Your task to perform on an android device: Search for Italian restaurants on Maps Image 0: 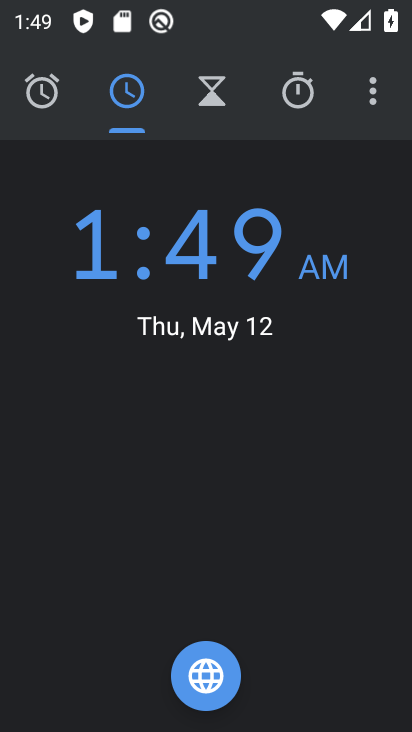
Step 0: press home button
Your task to perform on an android device: Search for Italian restaurants on Maps Image 1: 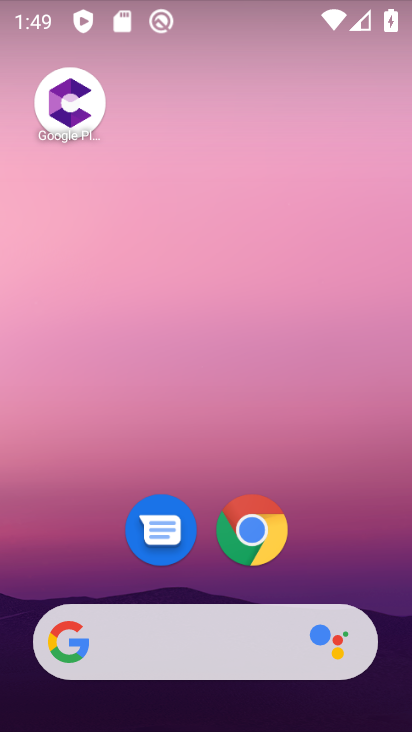
Step 1: drag from (39, 546) to (304, 124)
Your task to perform on an android device: Search for Italian restaurants on Maps Image 2: 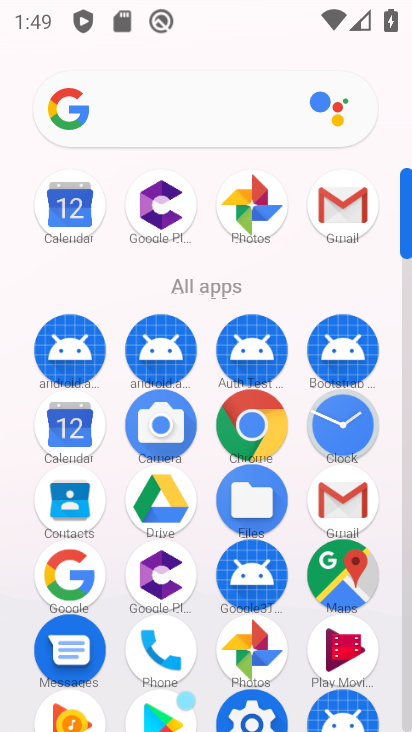
Step 2: click (334, 571)
Your task to perform on an android device: Search for Italian restaurants on Maps Image 3: 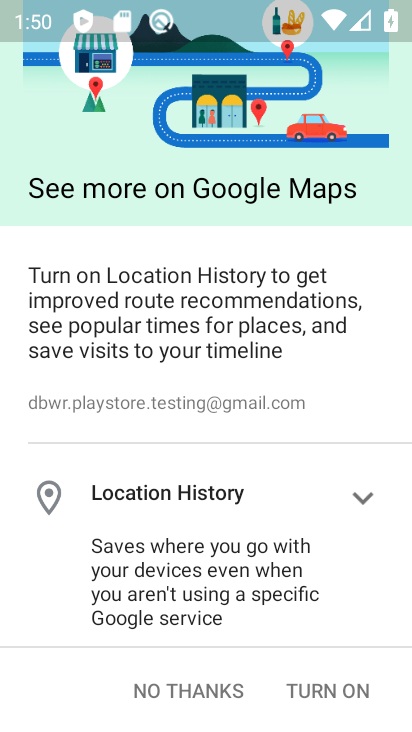
Step 3: click (195, 698)
Your task to perform on an android device: Search for Italian restaurants on Maps Image 4: 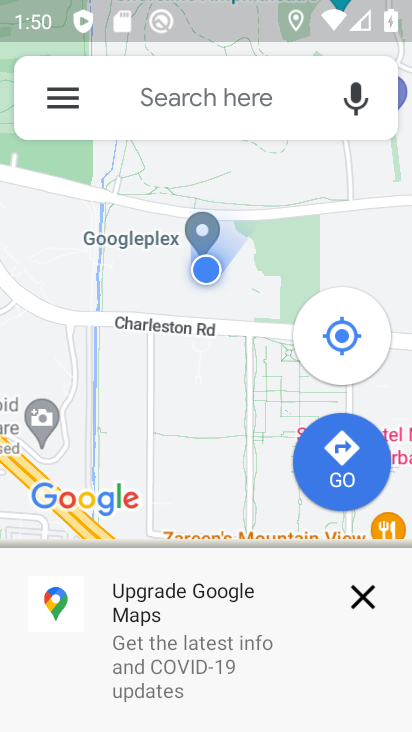
Step 4: click (260, 82)
Your task to perform on an android device: Search for Italian restaurants on Maps Image 5: 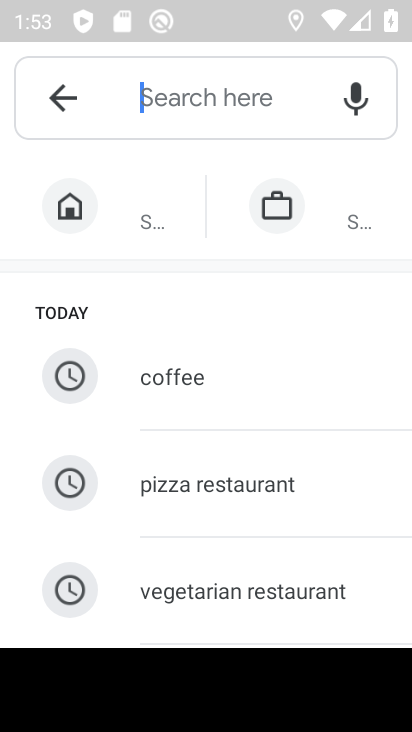
Step 5: drag from (232, 610) to (356, 227)
Your task to perform on an android device: Search for Italian restaurants on Maps Image 6: 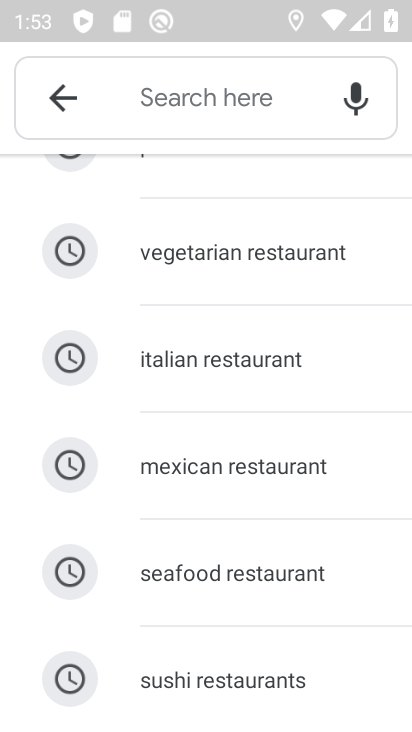
Step 6: click (252, 374)
Your task to perform on an android device: Search for Italian restaurants on Maps Image 7: 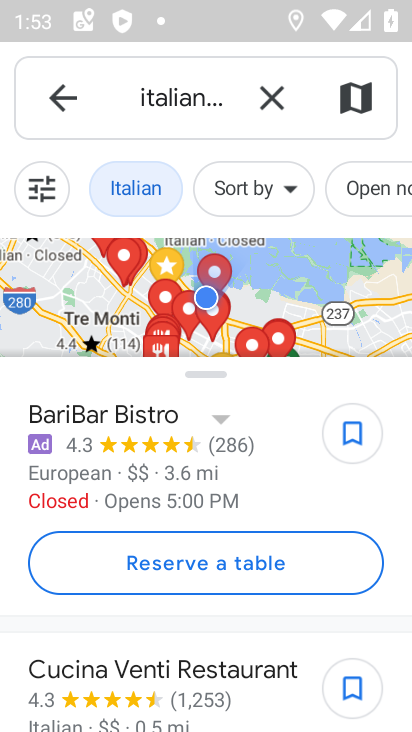
Step 7: task complete